Your task to perform on an android device: open app "Etsy: Buy & Sell Unique Items" (install if not already installed) and enter user name: "camp@inbox.com" and password: "unrelated" Image 0: 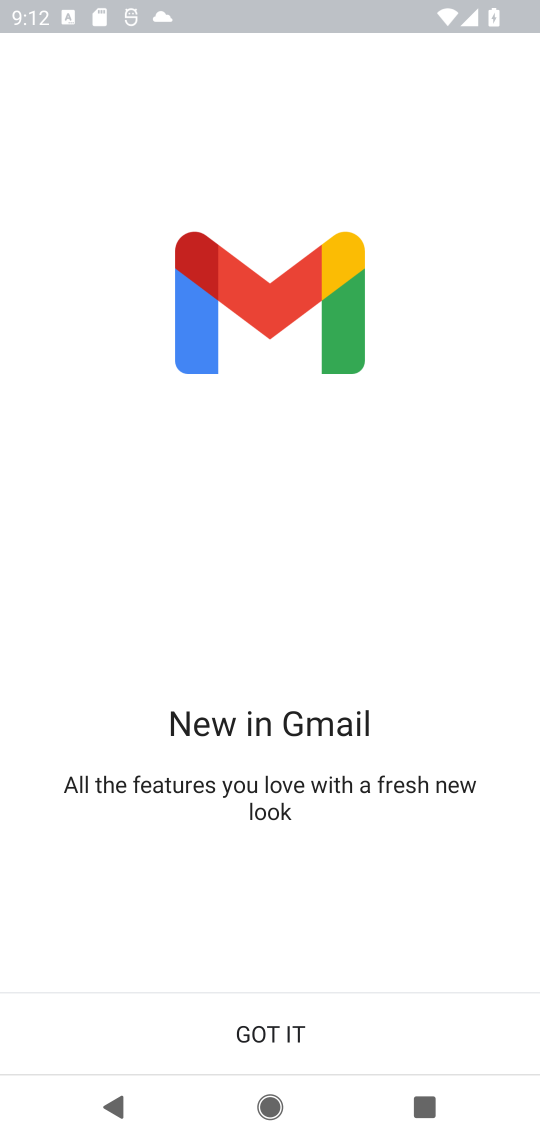
Step 0: press home button
Your task to perform on an android device: open app "Etsy: Buy & Sell Unique Items" (install if not already installed) and enter user name: "camp@inbox.com" and password: "unrelated" Image 1: 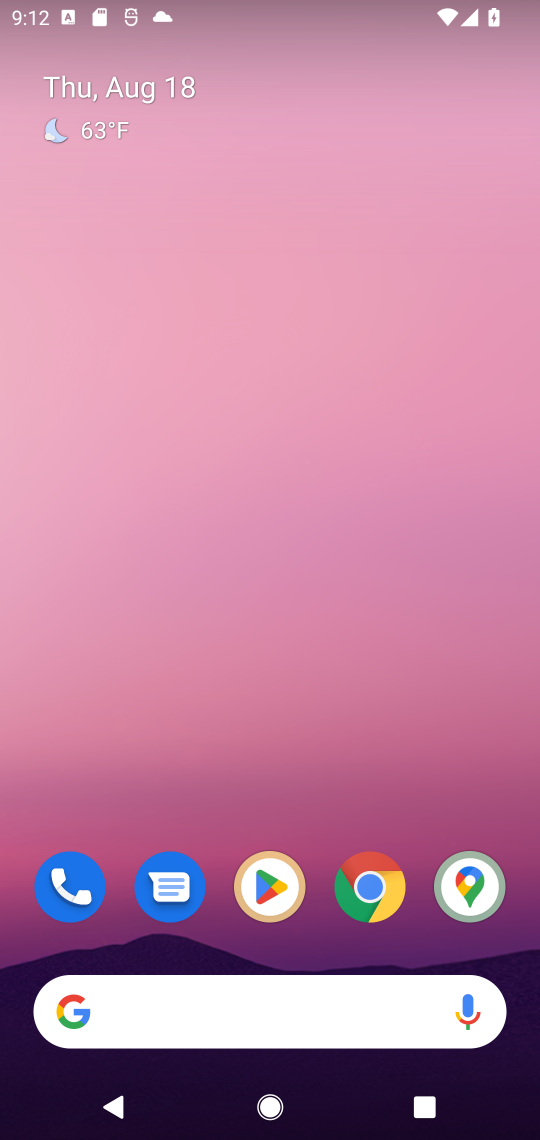
Step 1: click (277, 879)
Your task to perform on an android device: open app "Etsy: Buy & Sell Unique Items" (install if not already installed) and enter user name: "camp@inbox.com" and password: "unrelated" Image 2: 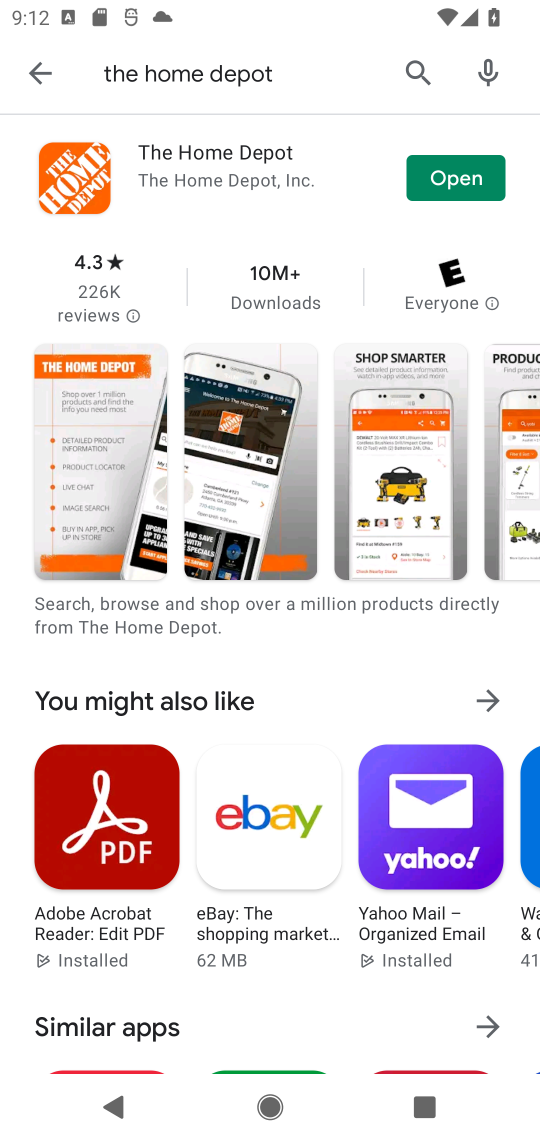
Step 2: click (413, 65)
Your task to perform on an android device: open app "Etsy: Buy & Sell Unique Items" (install if not already installed) and enter user name: "camp@inbox.com" and password: "unrelated" Image 3: 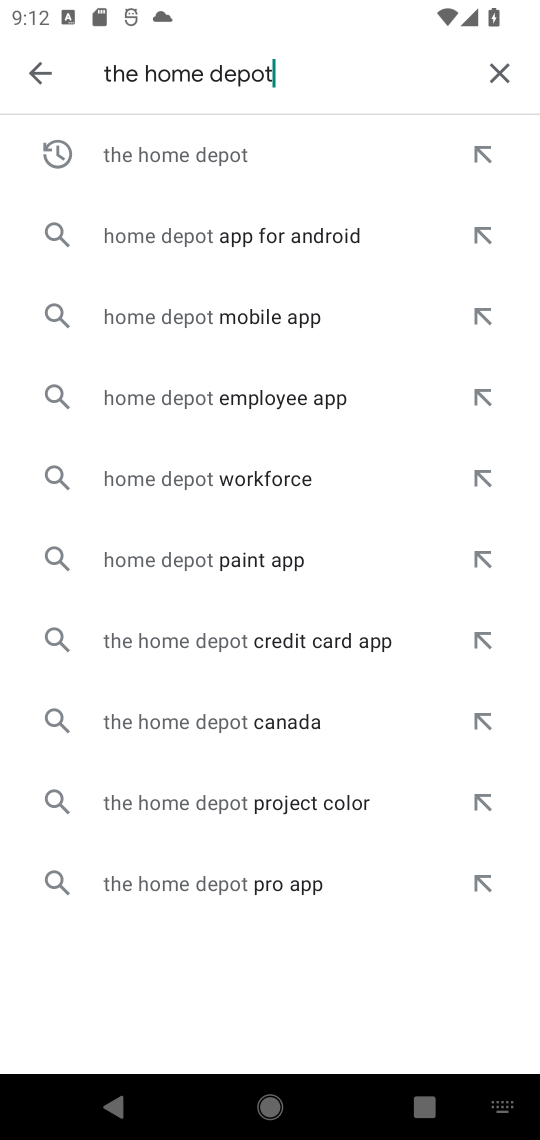
Step 3: click (494, 64)
Your task to perform on an android device: open app "Etsy: Buy & Sell Unique Items" (install if not already installed) and enter user name: "camp@inbox.com" and password: "unrelated" Image 4: 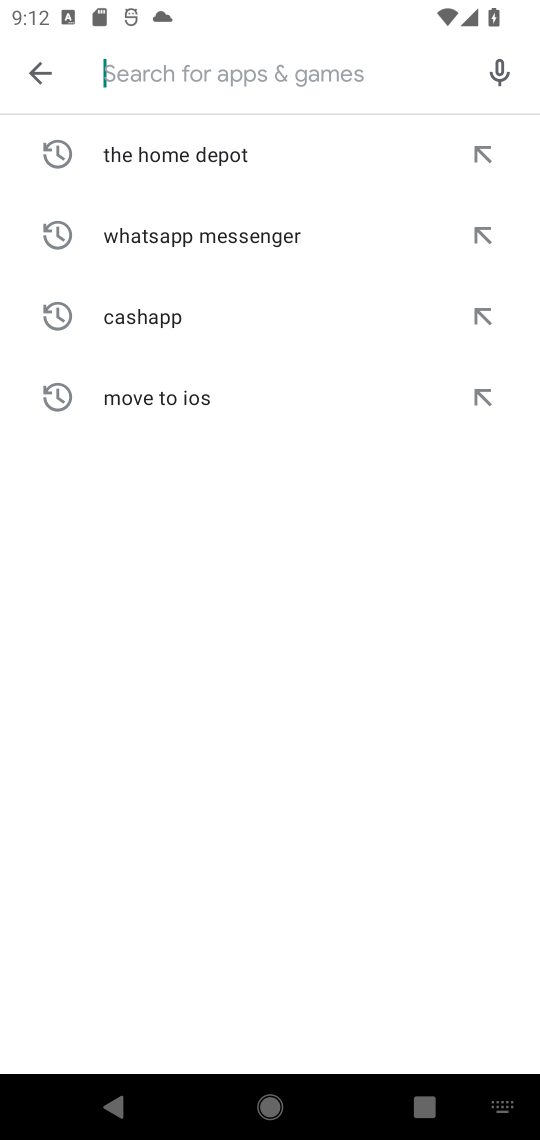
Step 4: type "Etsy: Buy & Sell Unique Item"
Your task to perform on an android device: open app "Etsy: Buy & Sell Unique Items" (install if not already installed) and enter user name: "camp@inbox.com" and password: "unrelated" Image 5: 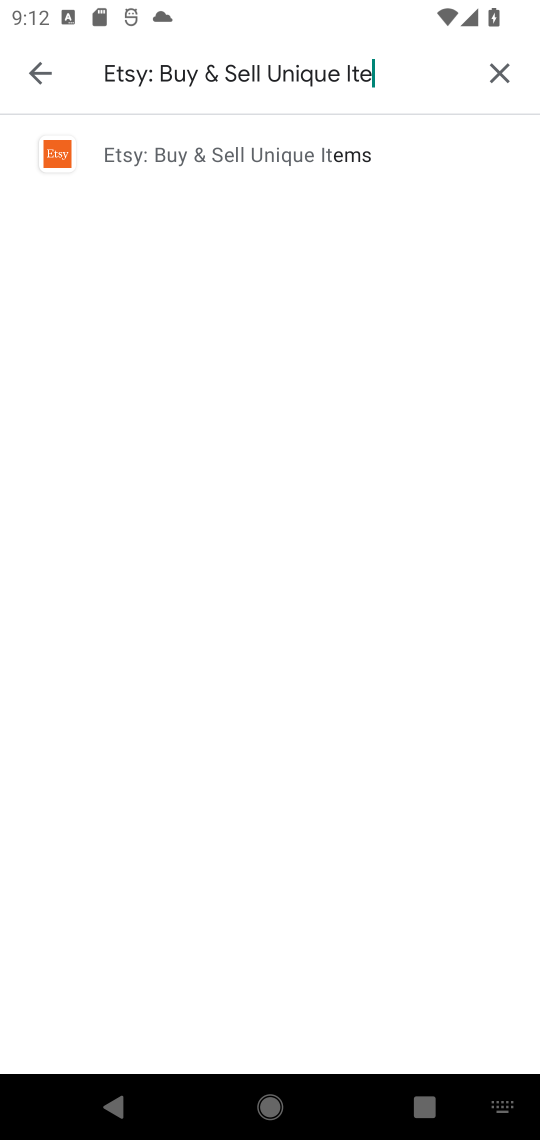
Step 5: type ""
Your task to perform on an android device: open app "Etsy: Buy & Sell Unique Items" (install if not already installed) and enter user name: "camp@inbox.com" and password: "unrelated" Image 6: 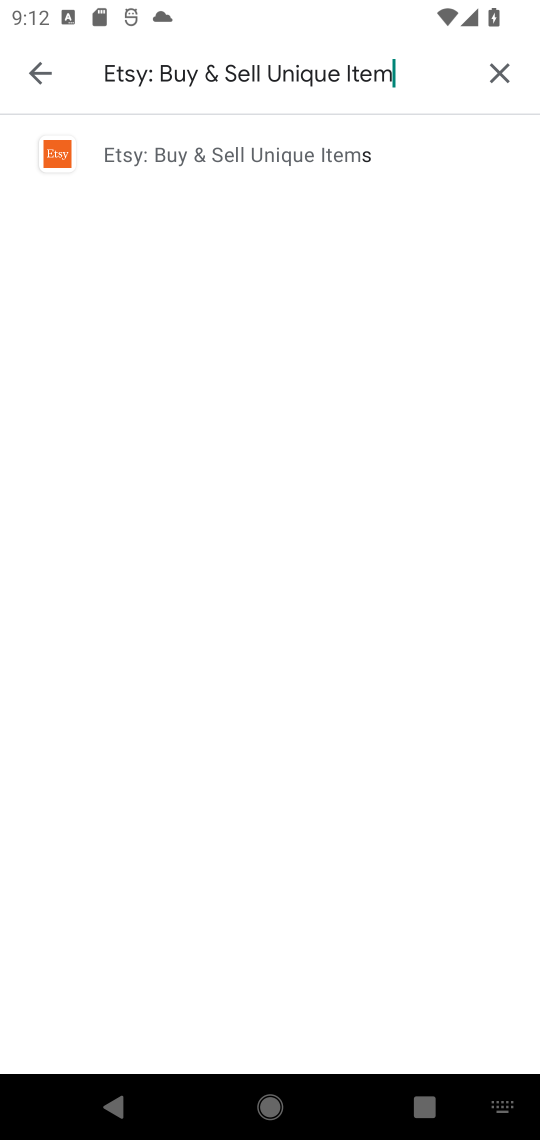
Step 6: click (190, 149)
Your task to perform on an android device: open app "Etsy: Buy & Sell Unique Items" (install if not already installed) and enter user name: "camp@inbox.com" and password: "unrelated" Image 7: 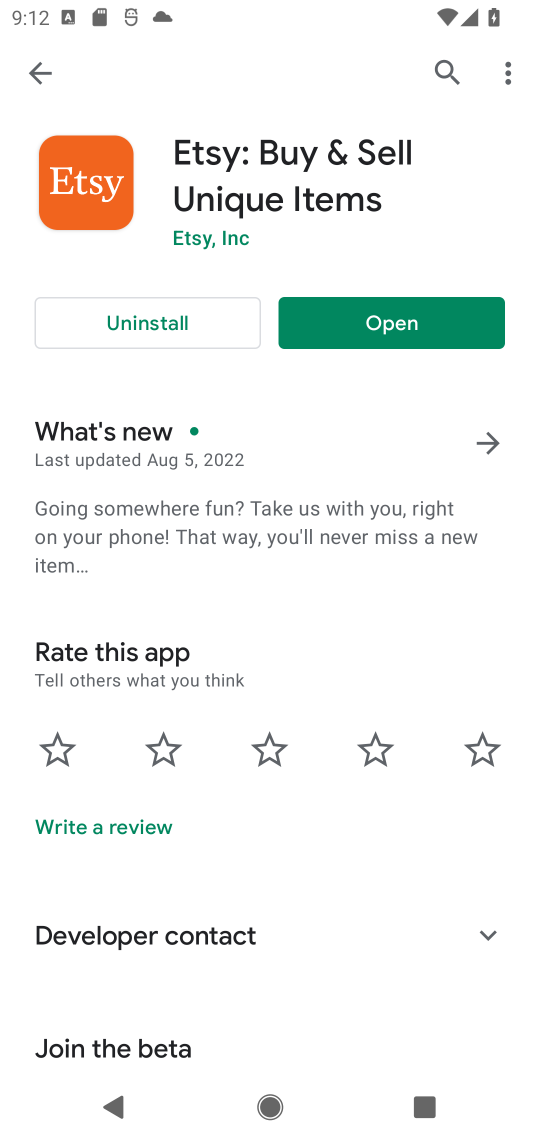
Step 7: click (401, 329)
Your task to perform on an android device: open app "Etsy: Buy & Sell Unique Items" (install if not already installed) and enter user name: "camp@inbox.com" and password: "unrelated" Image 8: 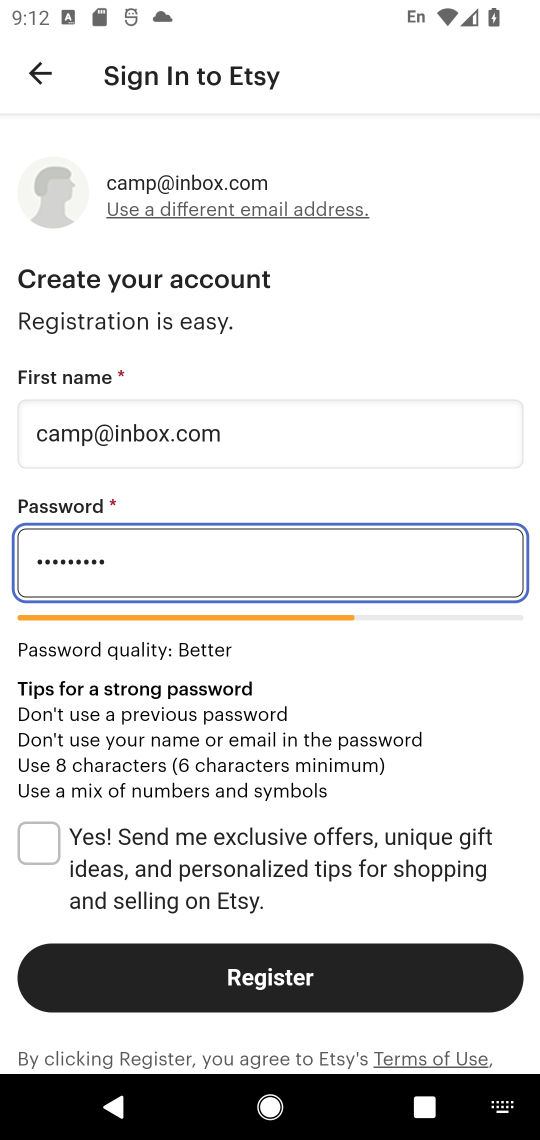
Step 8: task complete